Your task to perform on an android device: Go to ESPN.com Image 0: 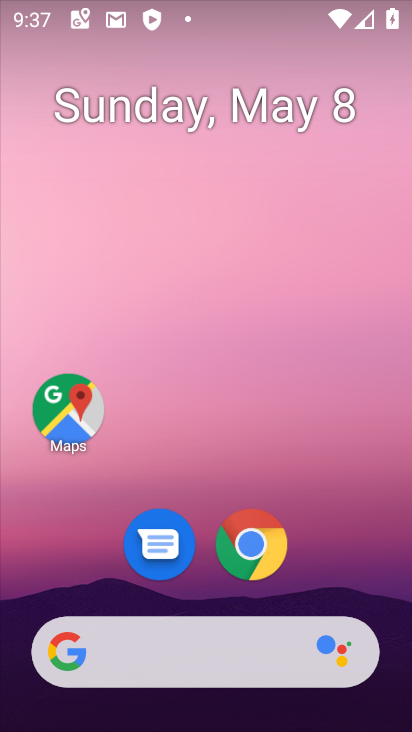
Step 0: click (262, 542)
Your task to perform on an android device: Go to ESPN.com Image 1: 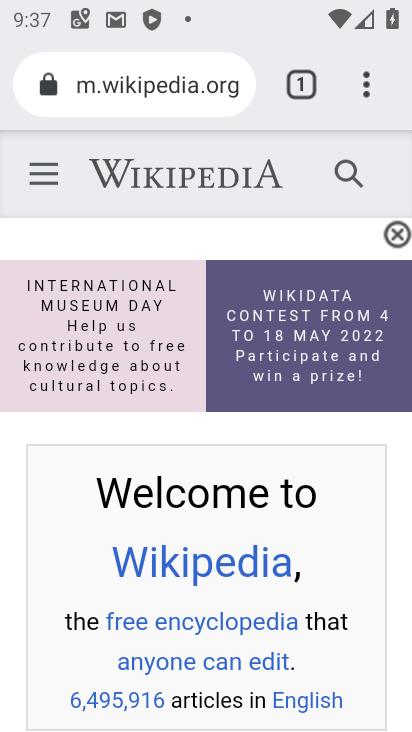
Step 1: click (217, 107)
Your task to perform on an android device: Go to ESPN.com Image 2: 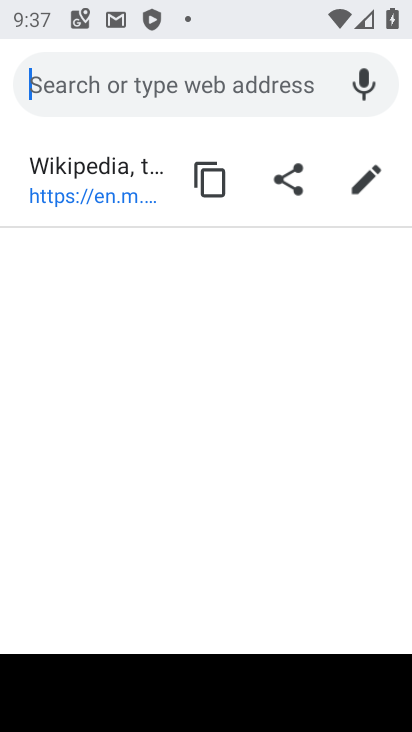
Step 2: type "espn"
Your task to perform on an android device: Go to ESPN.com Image 3: 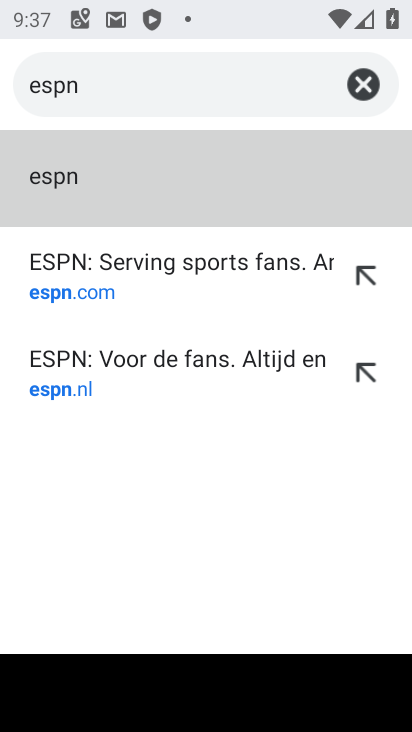
Step 3: click (129, 251)
Your task to perform on an android device: Go to ESPN.com Image 4: 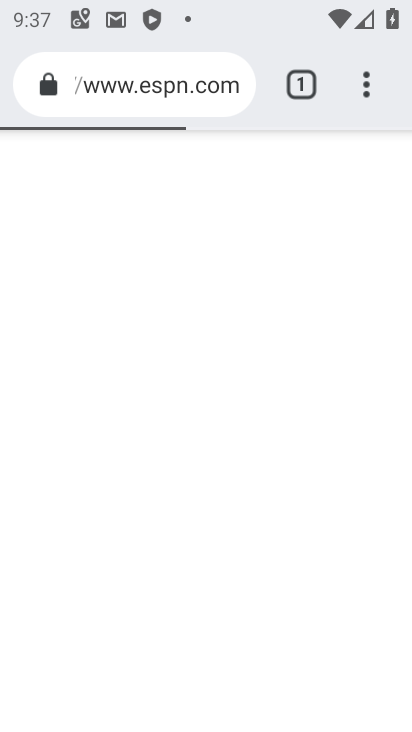
Step 4: task complete